Your task to perform on an android device: Search for "usb-c to usb-a" on target, select the first entry, add it to the cart, then select checkout. Image 0: 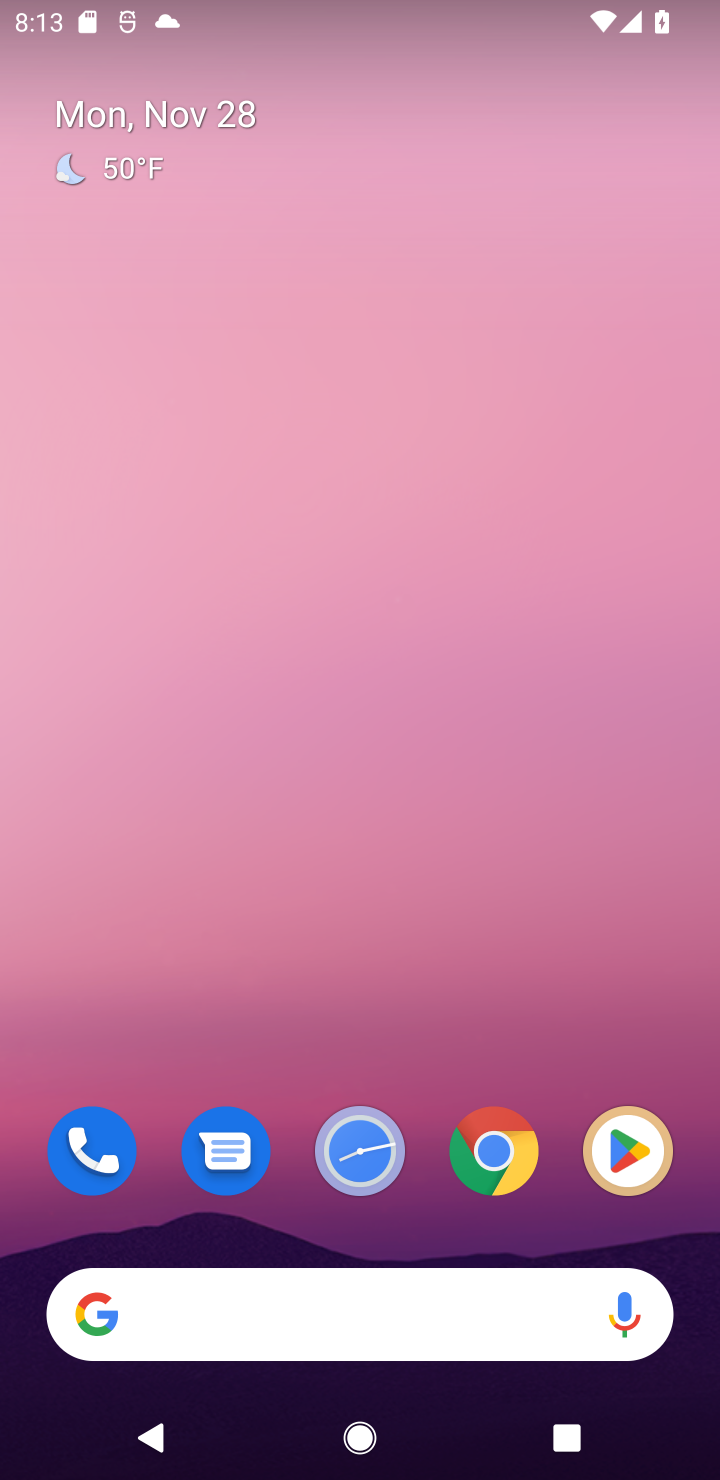
Step 0: click (320, 1306)
Your task to perform on an android device: Search for "usb-c to usb-a" on target, select the first entry, add it to the cart, then select checkout. Image 1: 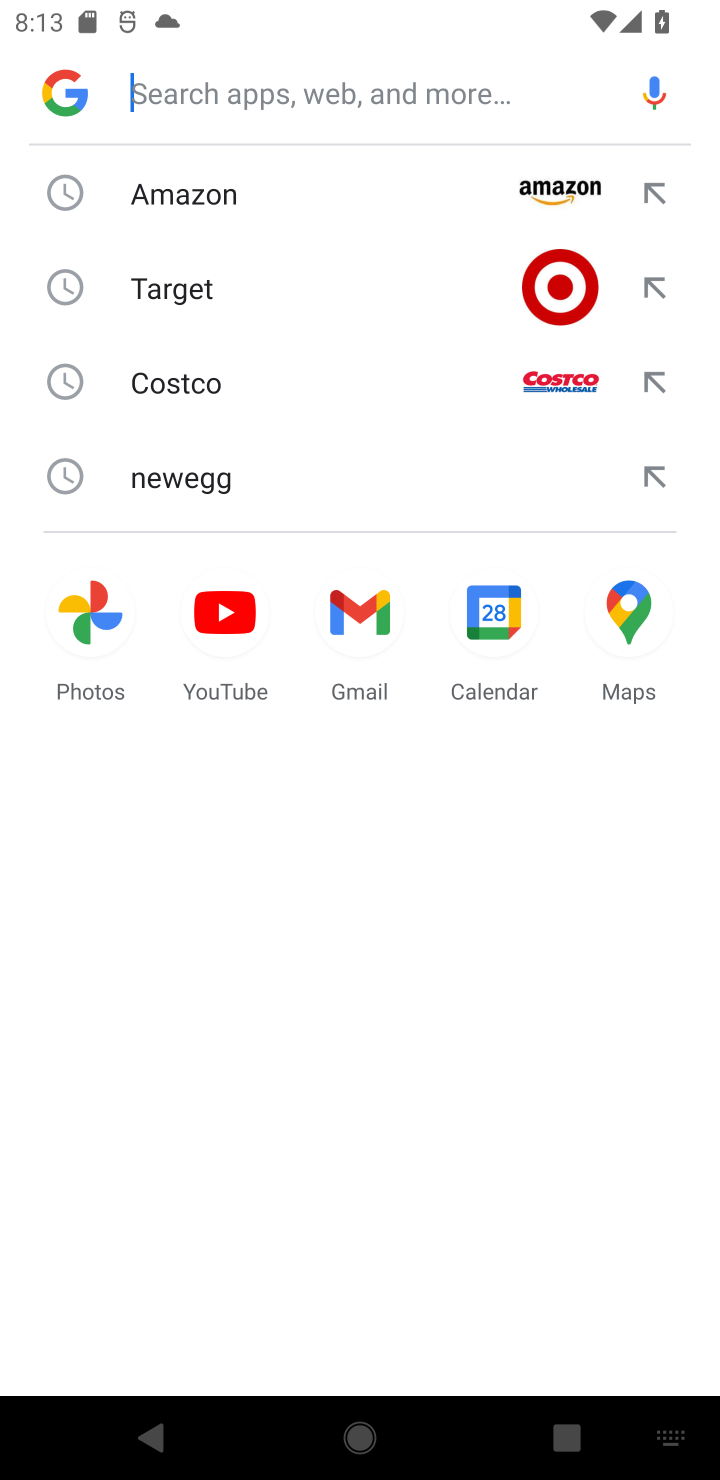
Step 1: type "target"
Your task to perform on an android device: Search for "usb-c to usb-a" on target, select the first entry, add it to the cart, then select checkout. Image 2: 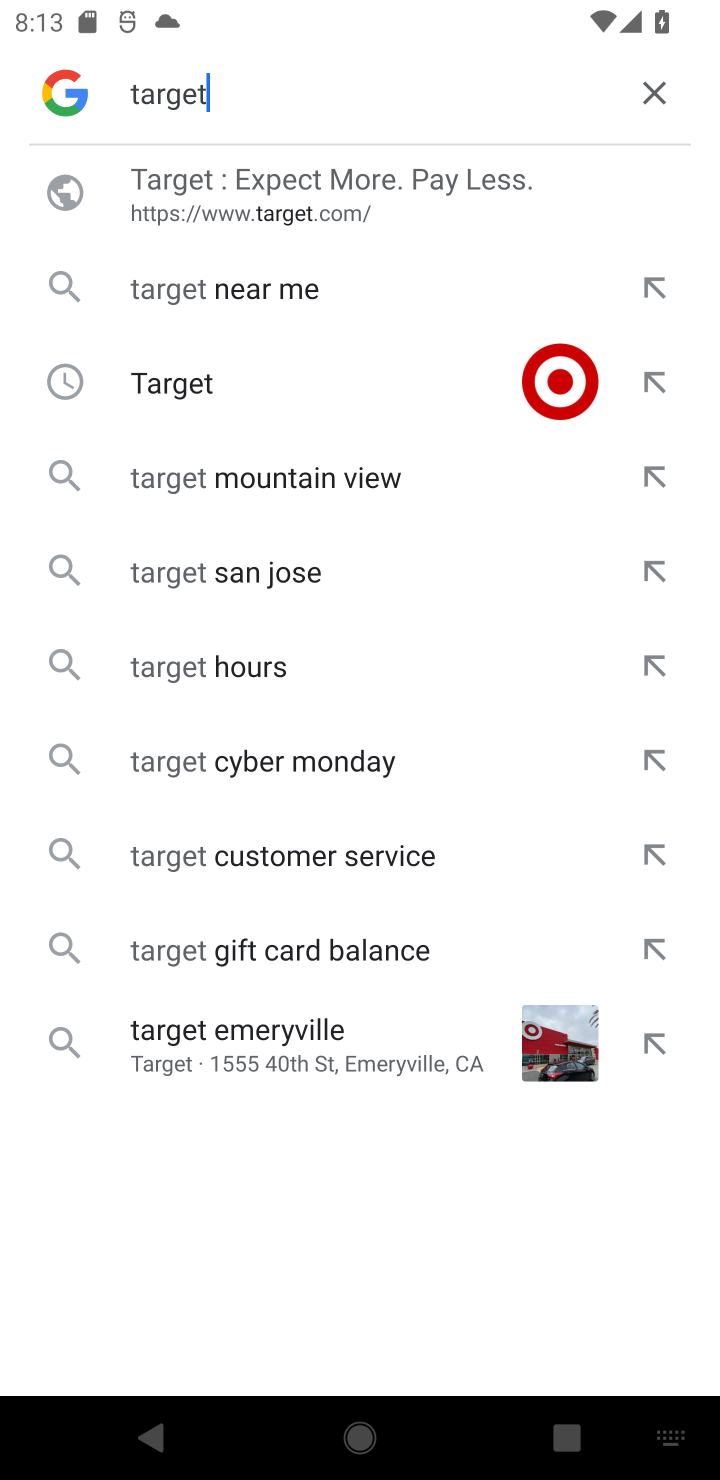
Step 2: click (173, 174)
Your task to perform on an android device: Search for "usb-c to usb-a" on target, select the first entry, add it to the cart, then select checkout. Image 3: 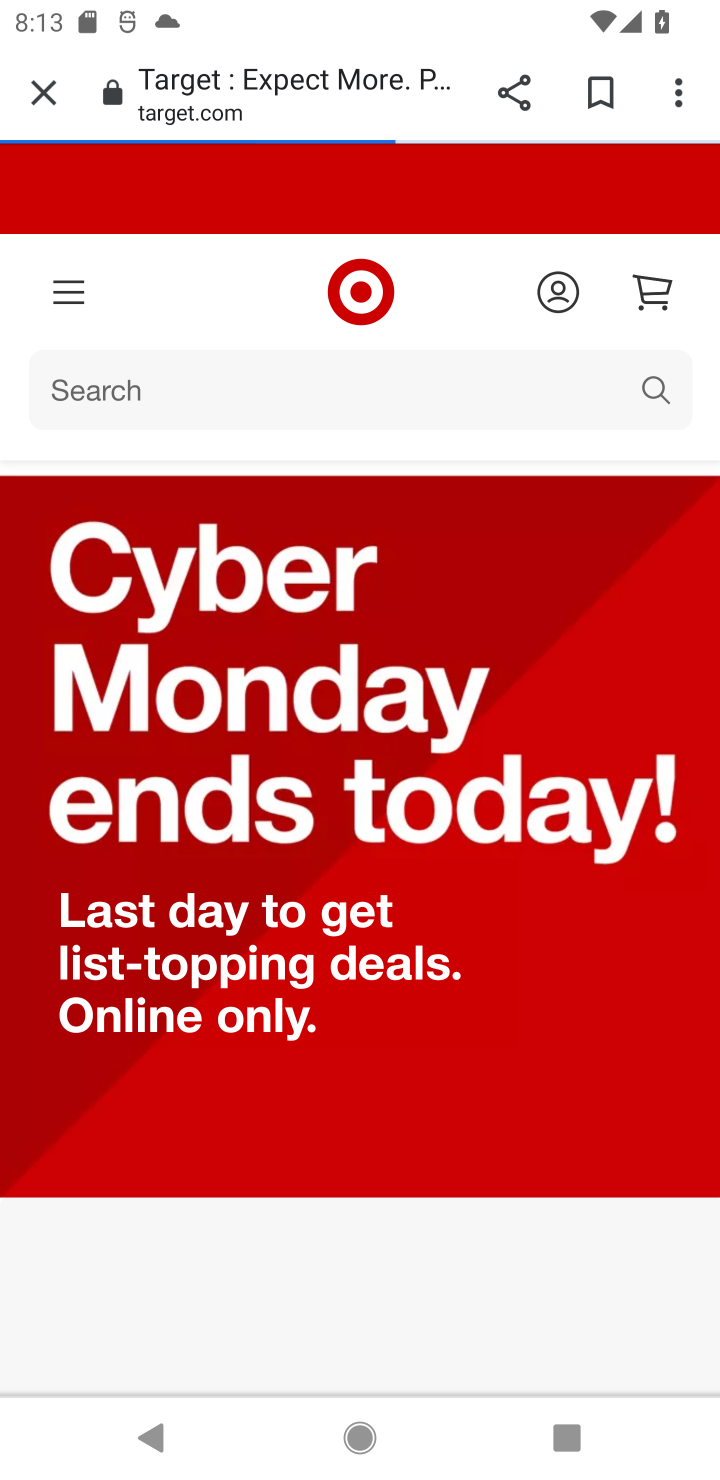
Step 3: click (188, 383)
Your task to perform on an android device: Search for "usb-c to usb-a" on target, select the first entry, add it to the cart, then select checkout. Image 4: 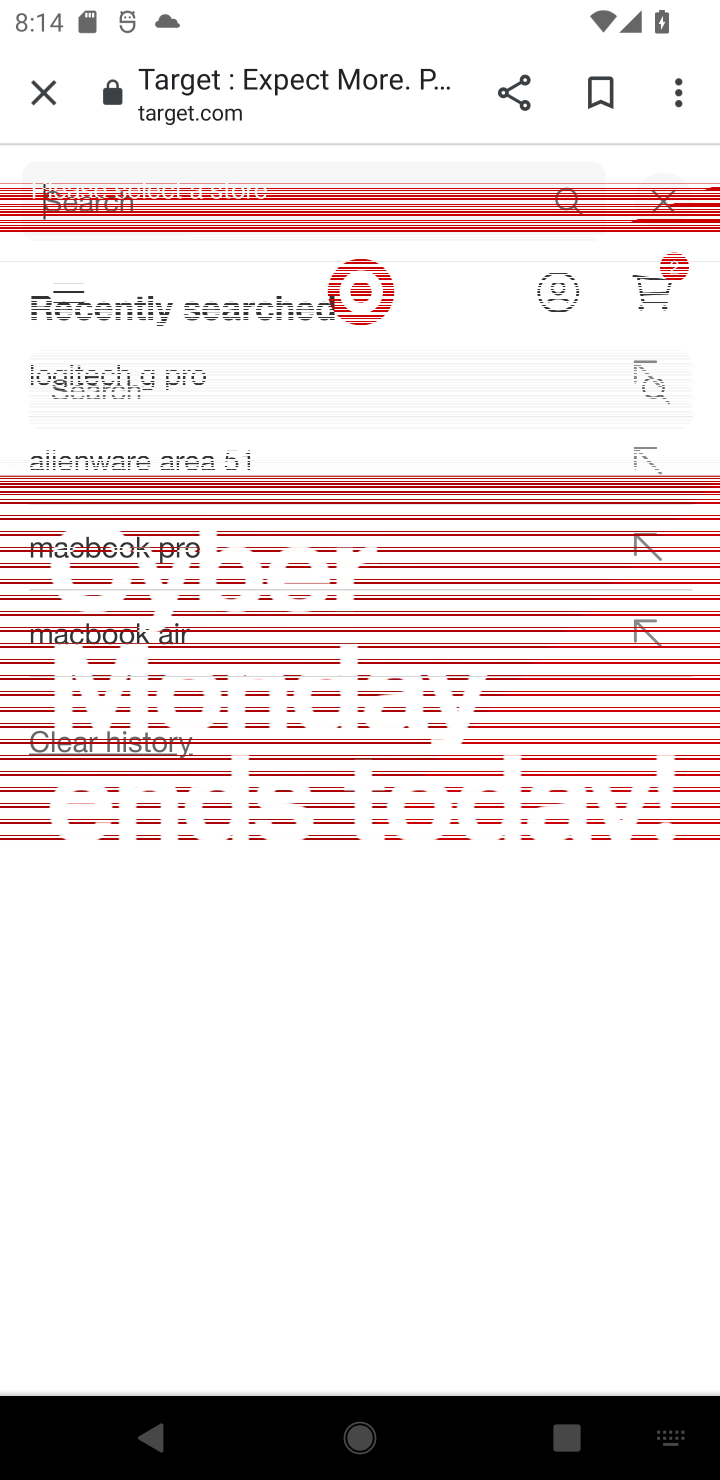
Step 4: type "usb-c to usb-a"
Your task to perform on an android device: Search for "usb-c to usb-a" on target, select the first entry, add it to the cart, then select checkout. Image 5: 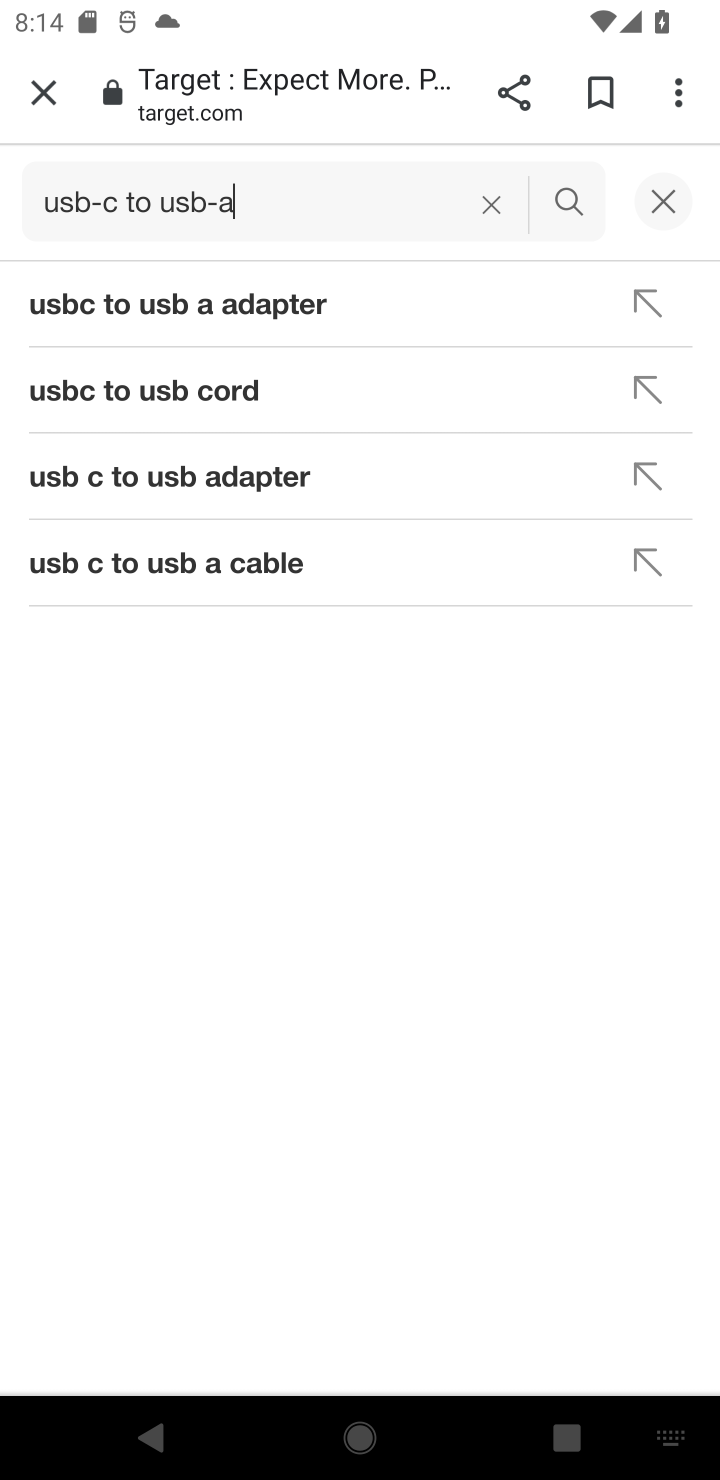
Step 5: task complete